Your task to perform on an android device: install app "LiveIn - Share Your Moment" Image 0: 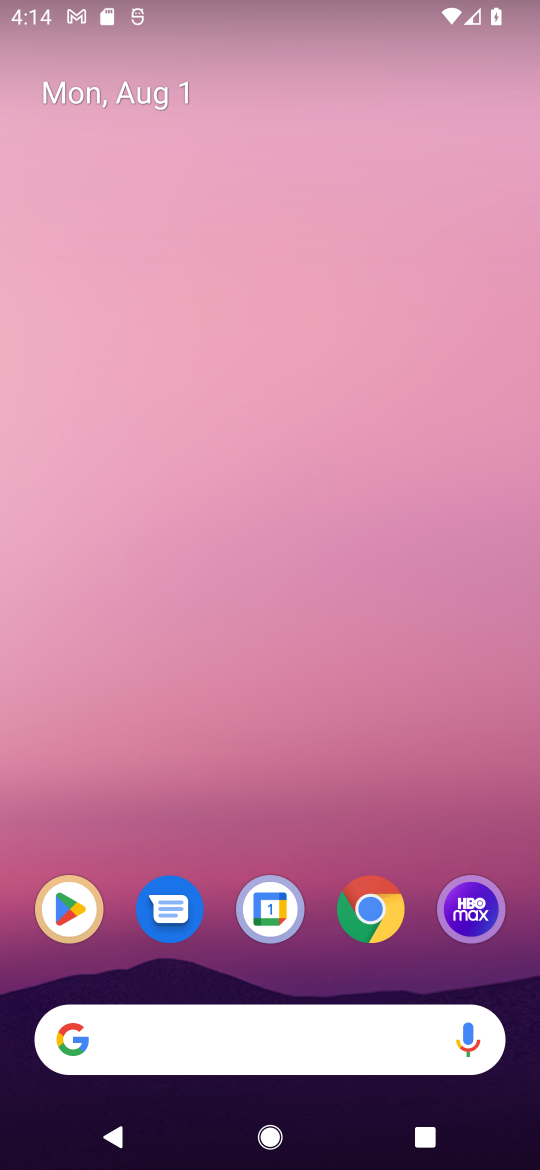
Step 0: click (70, 917)
Your task to perform on an android device: install app "LiveIn - Share Your Moment" Image 1: 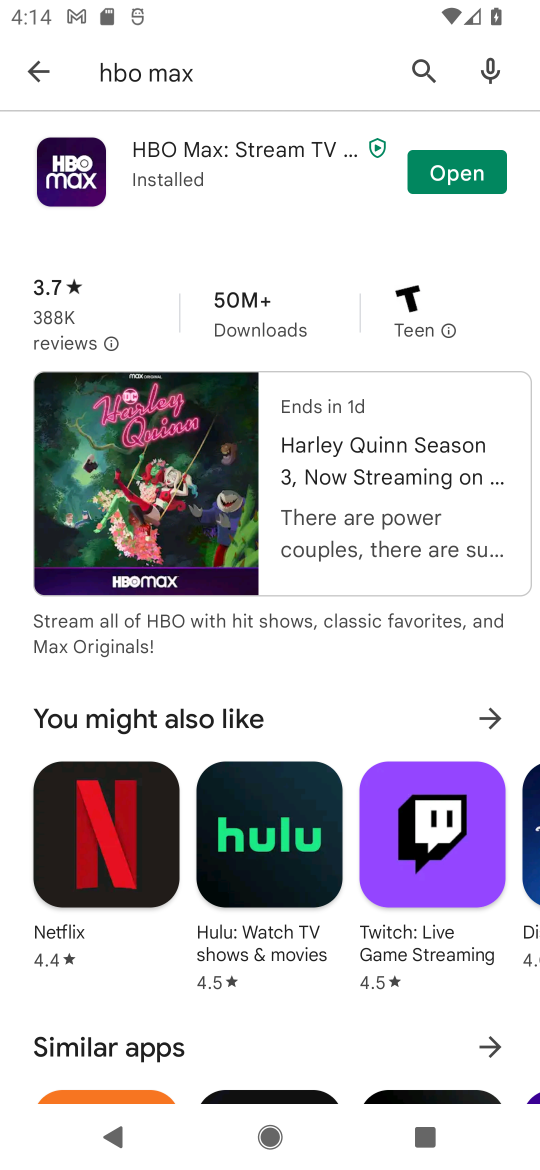
Step 1: click (247, 75)
Your task to perform on an android device: install app "LiveIn - Share Your Moment" Image 2: 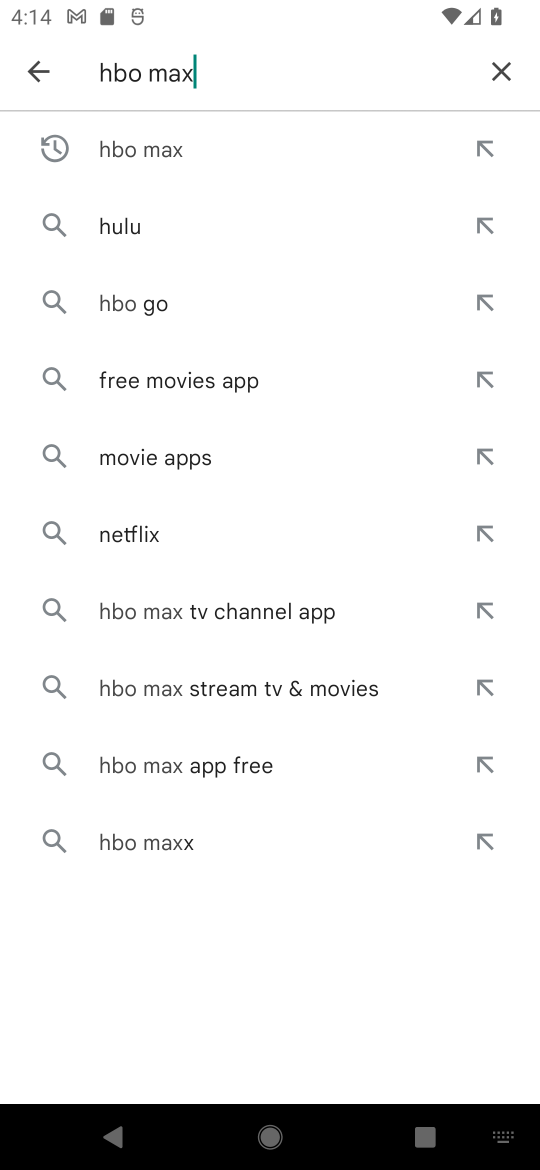
Step 2: click (502, 67)
Your task to perform on an android device: install app "LiveIn - Share Your Moment" Image 3: 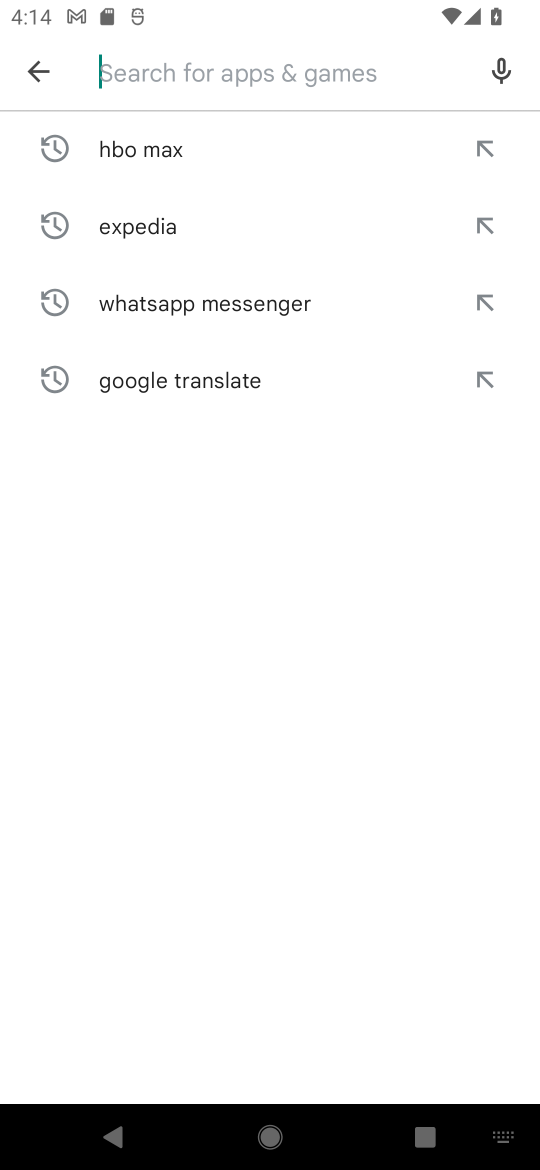
Step 3: type "liveIn"
Your task to perform on an android device: install app "LiveIn - Share Your Moment" Image 4: 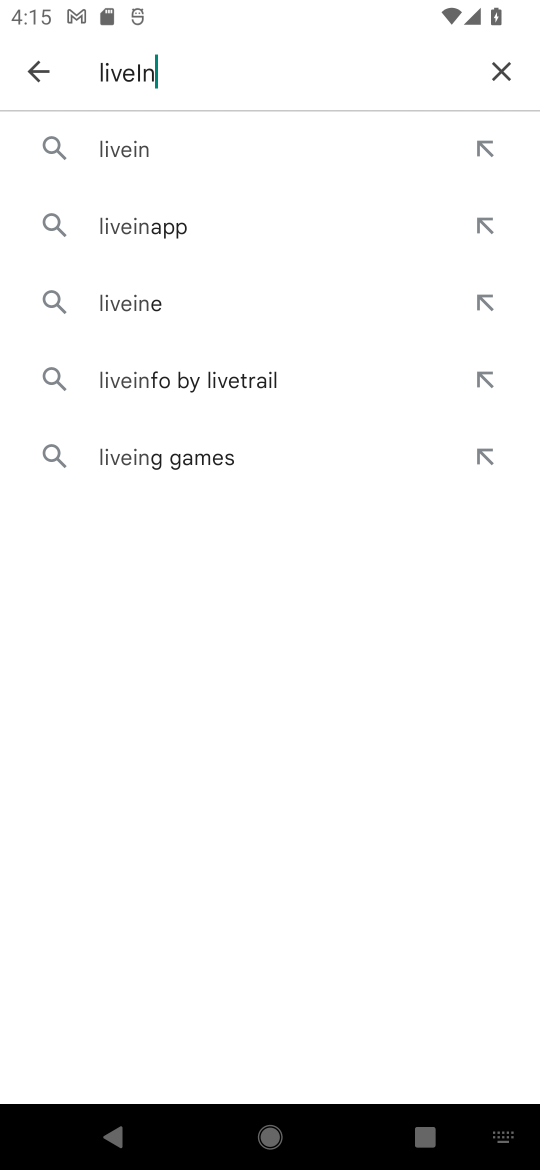
Step 4: click (197, 147)
Your task to perform on an android device: install app "LiveIn - Share Your Moment" Image 5: 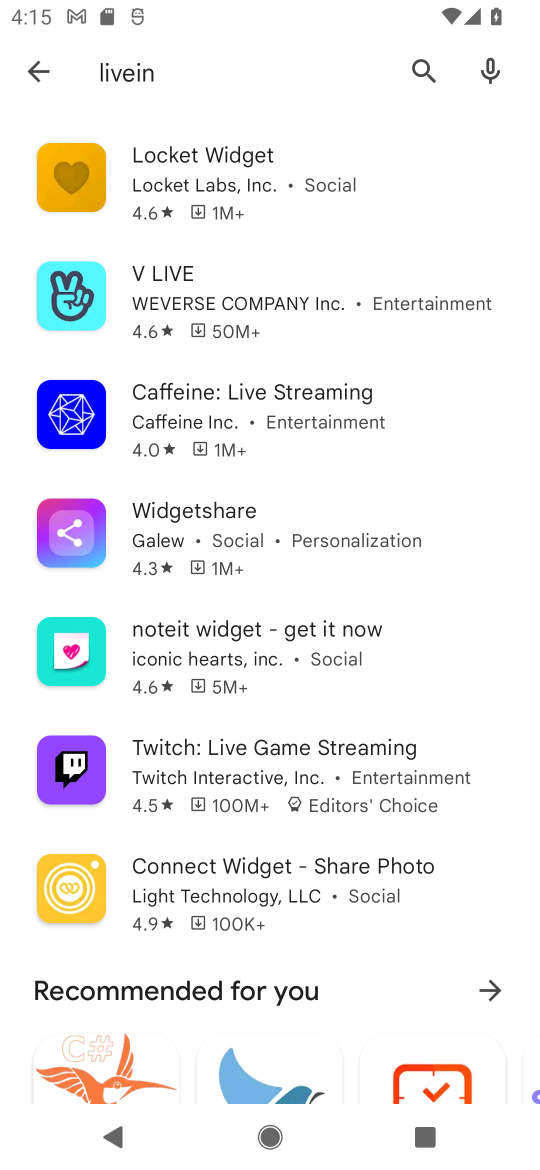
Step 5: task complete